Your task to perform on an android device: Open calendar and show me the fourth week of next month Image 0: 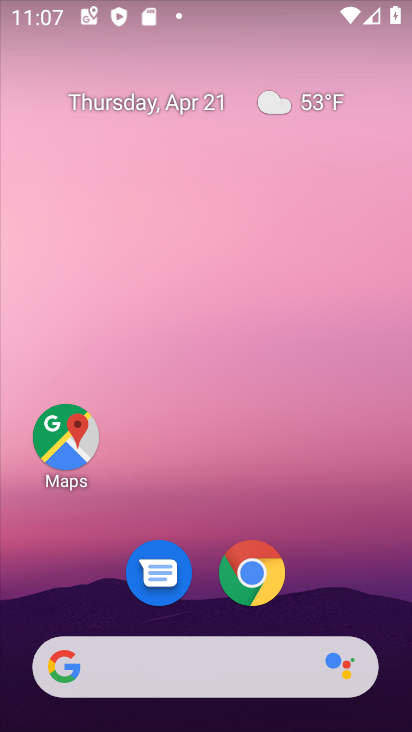
Step 0: drag from (373, 574) to (384, 131)
Your task to perform on an android device: Open calendar and show me the fourth week of next month Image 1: 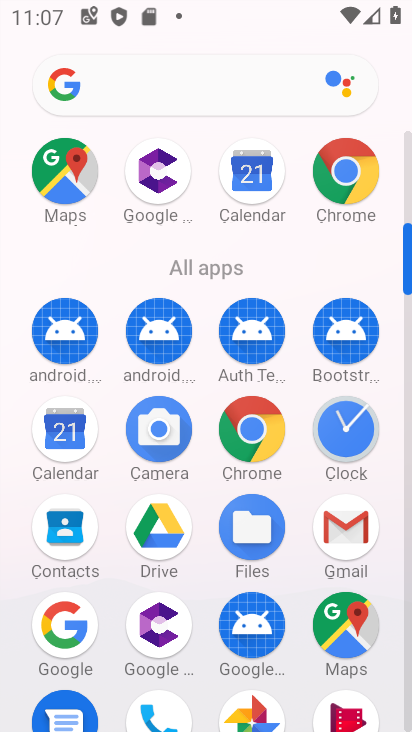
Step 1: click (76, 427)
Your task to perform on an android device: Open calendar and show me the fourth week of next month Image 2: 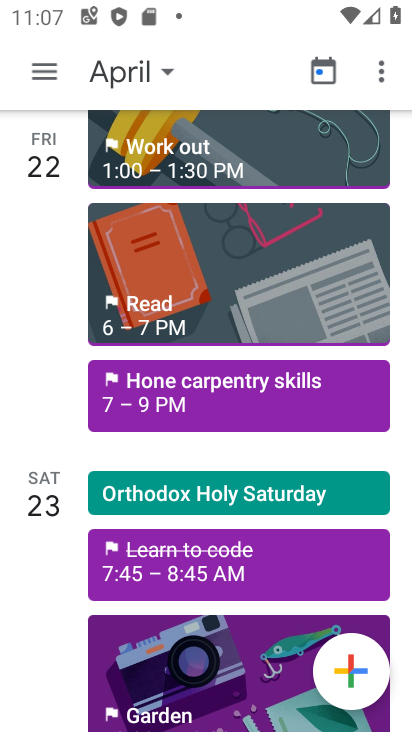
Step 2: click (149, 69)
Your task to perform on an android device: Open calendar and show me the fourth week of next month Image 3: 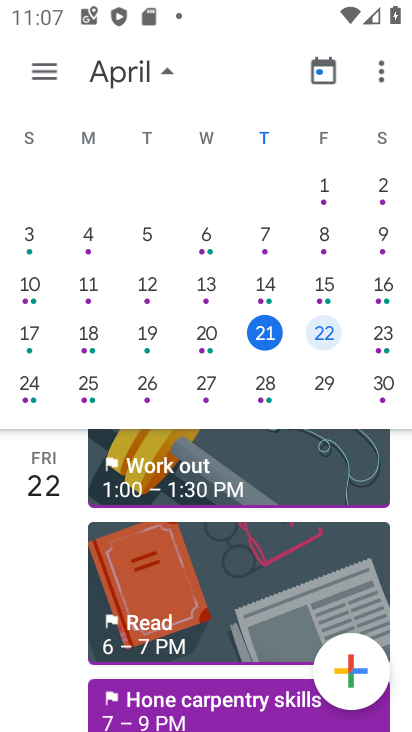
Step 3: drag from (387, 246) to (25, 220)
Your task to perform on an android device: Open calendar and show me the fourth week of next month Image 4: 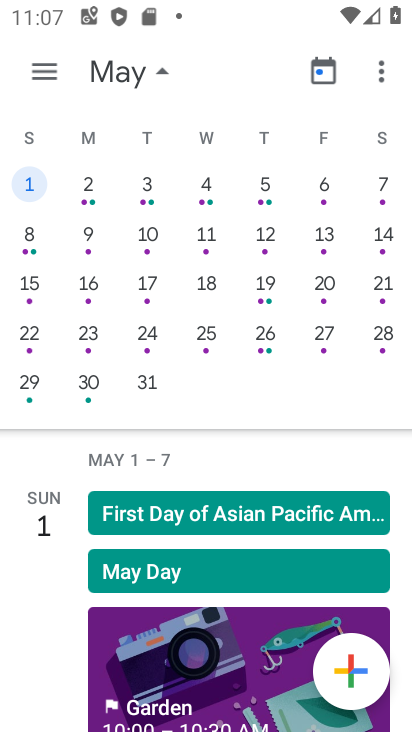
Step 4: click (256, 336)
Your task to perform on an android device: Open calendar and show me the fourth week of next month Image 5: 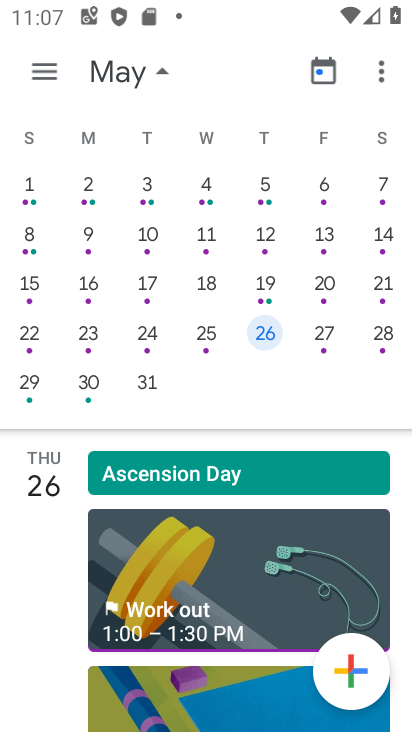
Step 5: task complete